Your task to perform on an android device: toggle sleep mode Image 0: 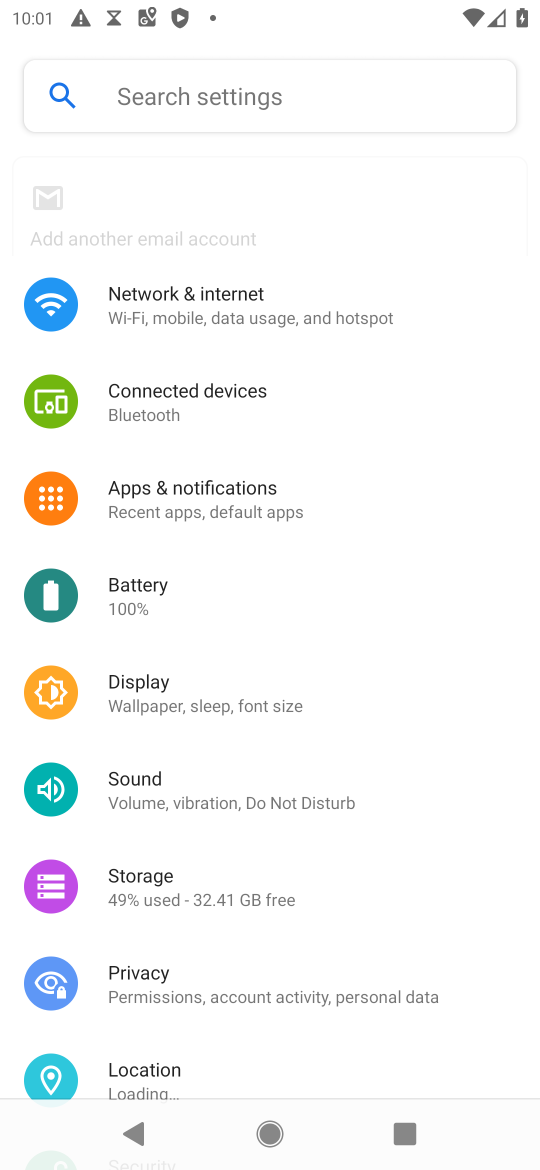
Step 0: press home button
Your task to perform on an android device: toggle sleep mode Image 1: 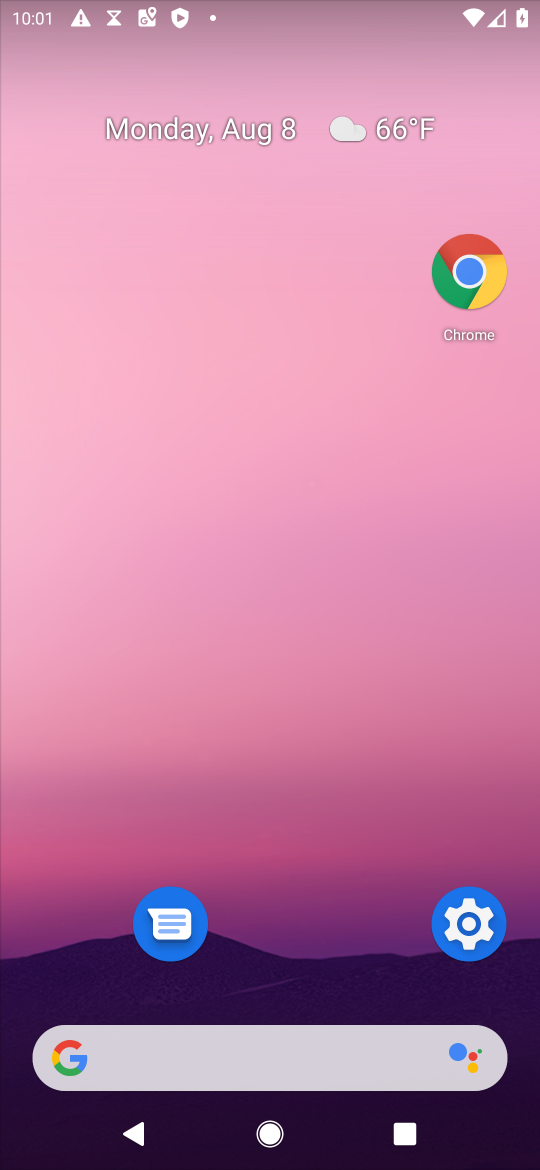
Step 1: drag from (94, 1001) to (394, 101)
Your task to perform on an android device: toggle sleep mode Image 2: 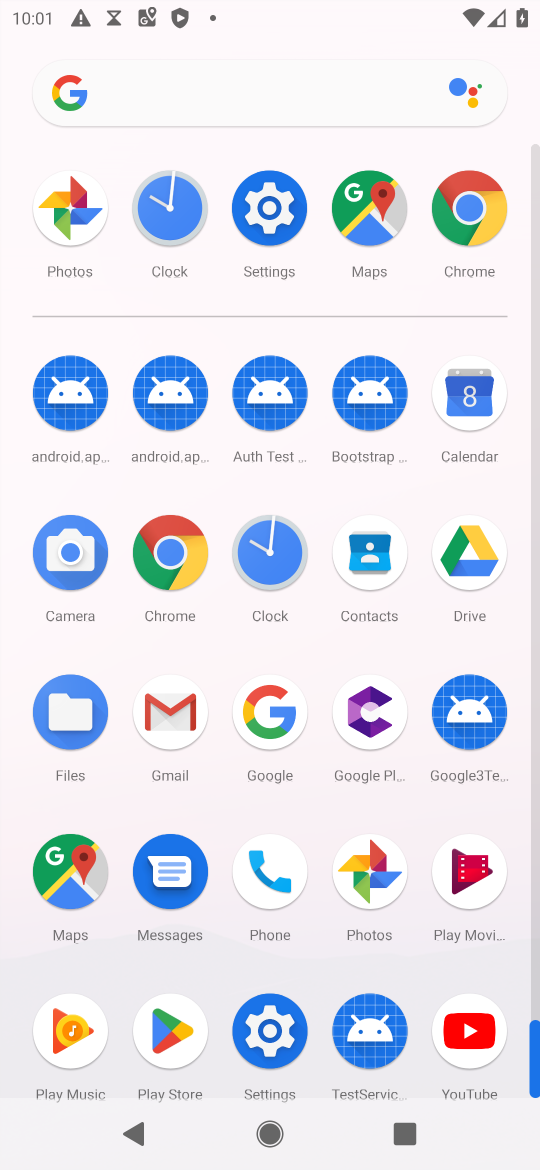
Step 2: click (265, 239)
Your task to perform on an android device: toggle sleep mode Image 3: 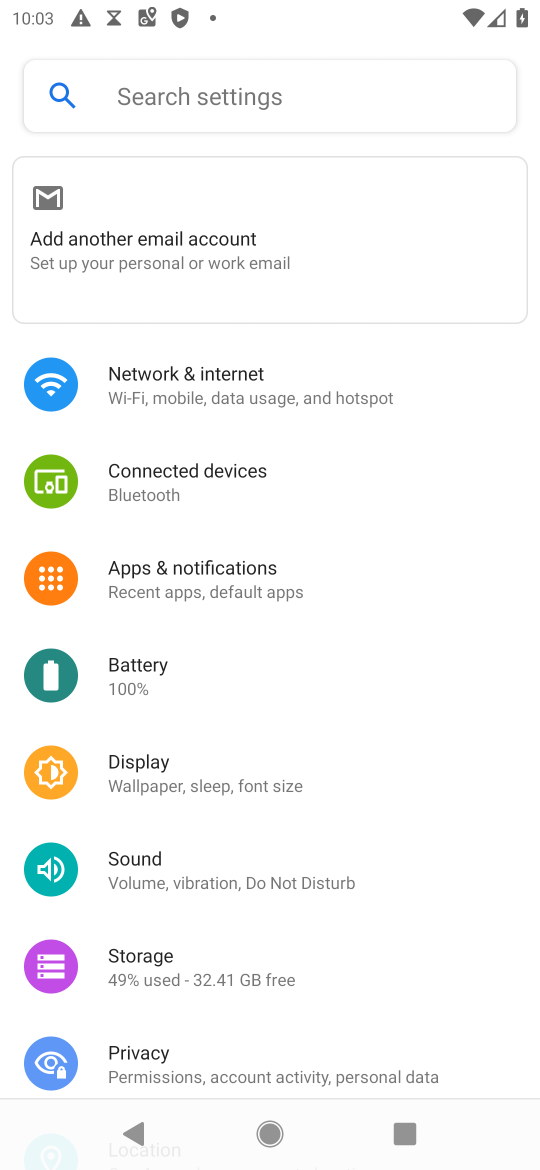
Step 3: click (89, 776)
Your task to perform on an android device: toggle sleep mode Image 4: 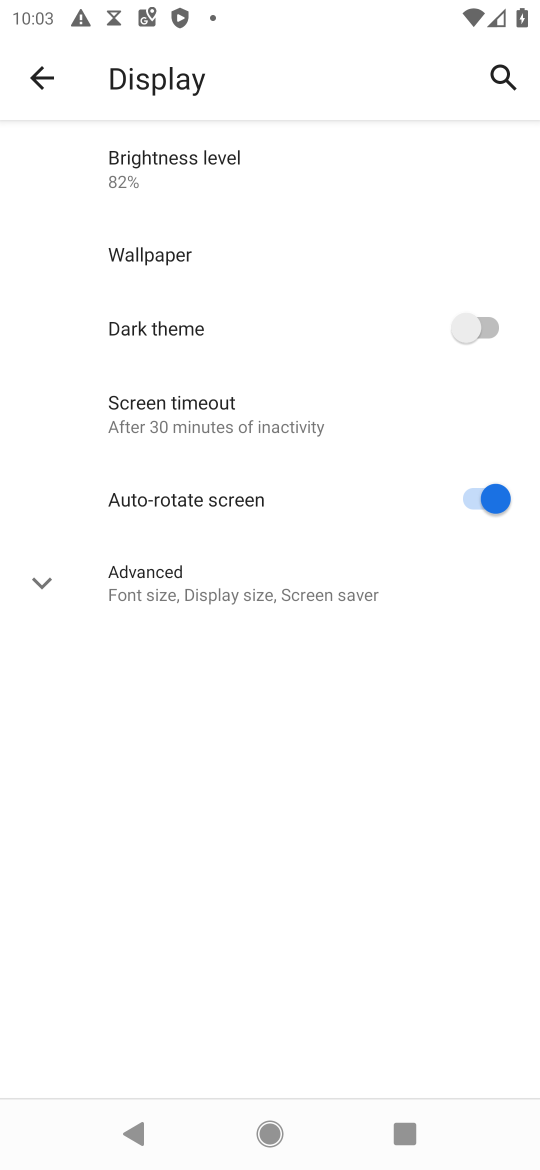
Step 4: task complete